Your task to perform on an android device: find photos in the google photos app Image 0: 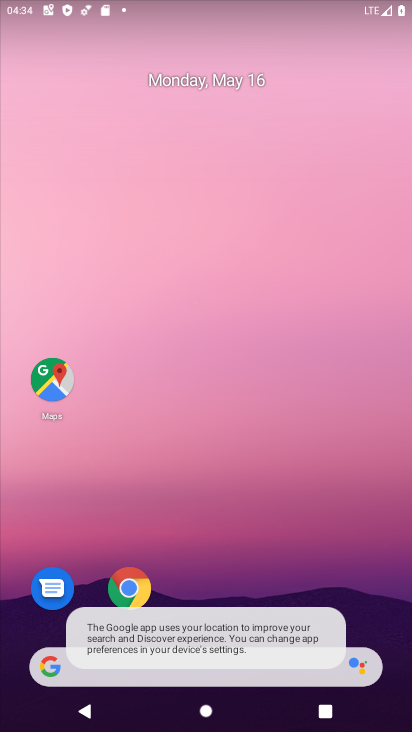
Step 0: drag from (331, 575) to (236, 0)
Your task to perform on an android device: find photos in the google photos app Image 1: 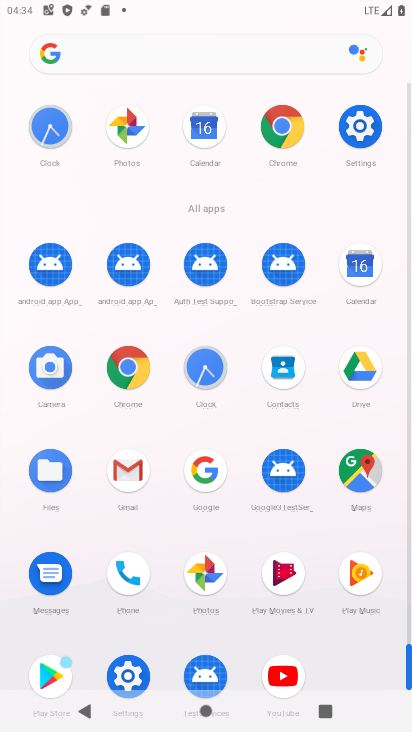
Step 1: drag from (9, 528) to (1, 155)
Your task to perform on an android device: find photos in the google photos app Image 2: 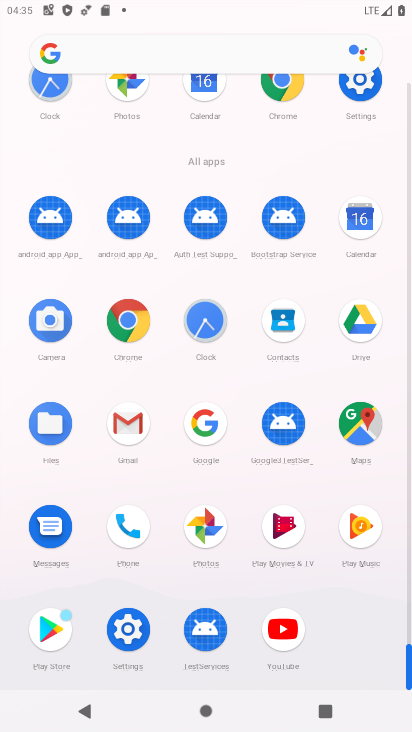
Step 2: drag from (18, 549) to (9, 211)
Your task to perform on an android device: find photos in the google photos app Image 3: 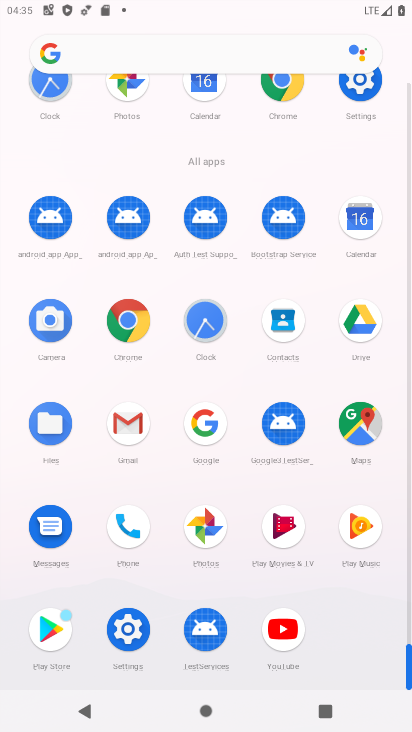
Step 3: click (200, 530)
Your task to perform on an android device: find photos in the google photos app Image 4: 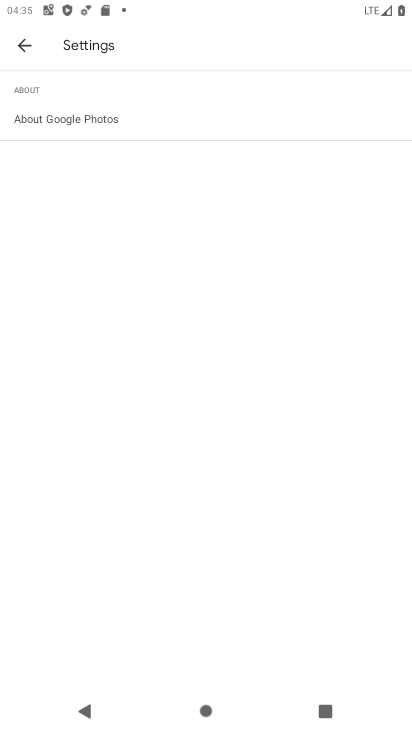
Step 4: click (15, 48)
Your task to perform on an android device: find photos in the google photos app Image 5: 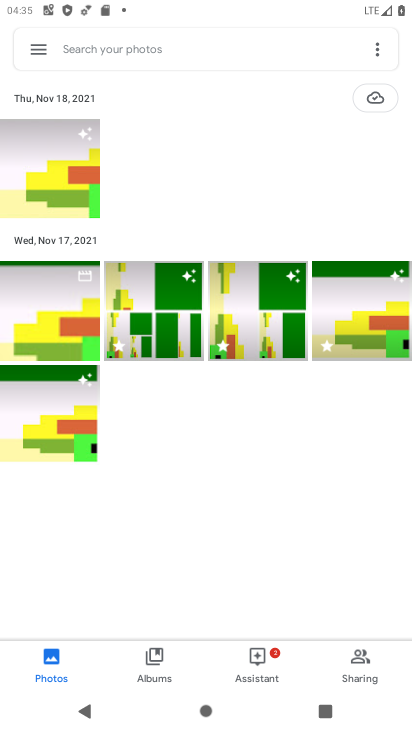
Step 5: task complete